Your task to perform on an android device: toggle show notifications on the lock screen Image 0: 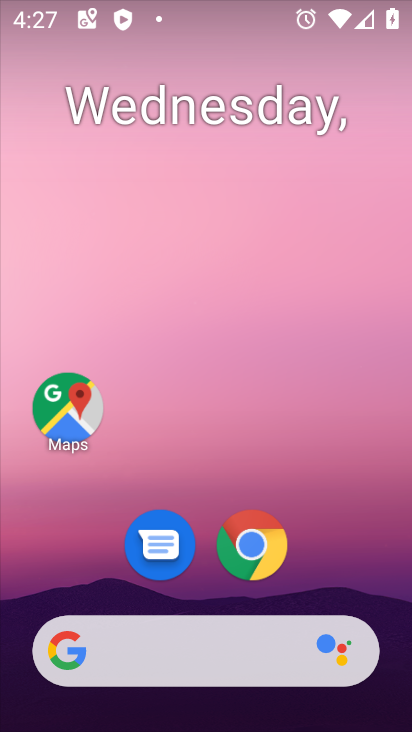
Step 0: drag from (365, 588) to (361, 236)
Your task to perform on an android device: toggle show notifications on the lock screen Image 1: 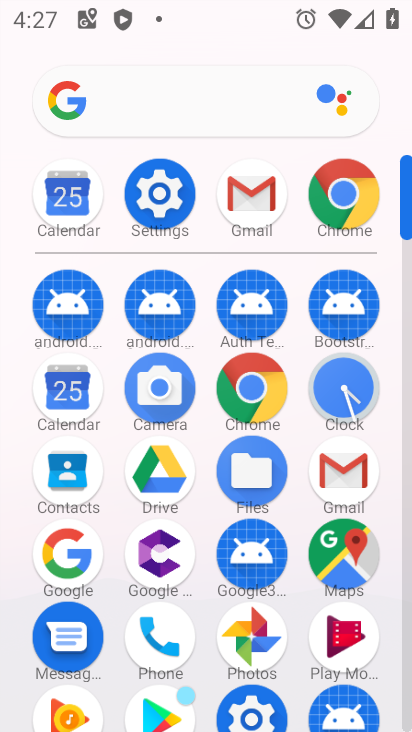
Step 1: click (192, 209)
Your task to perform on an android device: toggle show notifications on the lock screen Image 2: 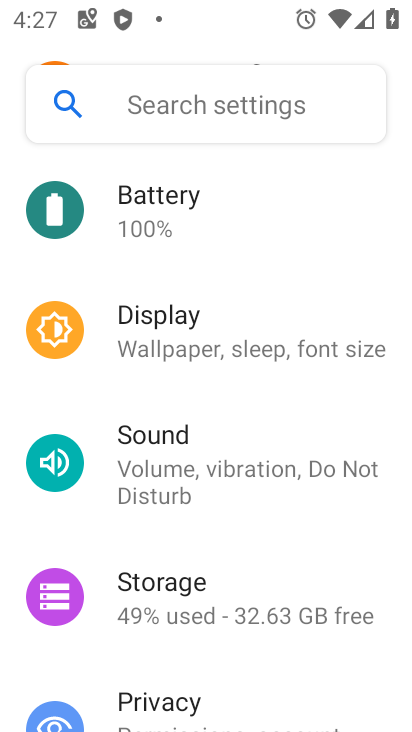
Step 2: drag from (311, 522) to (318, 372)
Your task to perform on an android device: toggle show notifications on the lock screen Image 3: 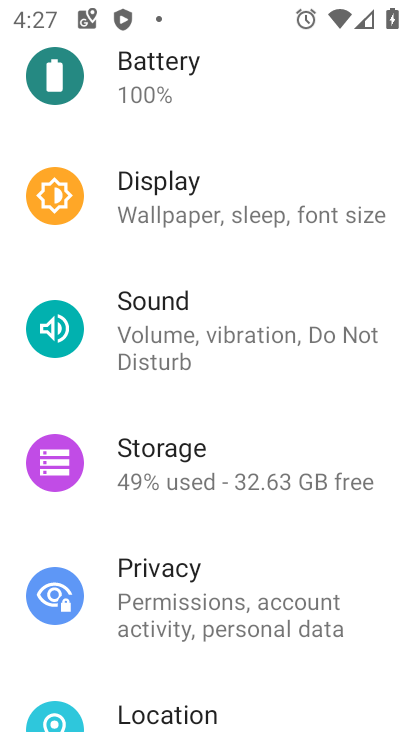
Step 3: drag from (341, 603) to (349, 428)
Your task to perform on an android device: toggle show notifications on the lock screen Image 4: 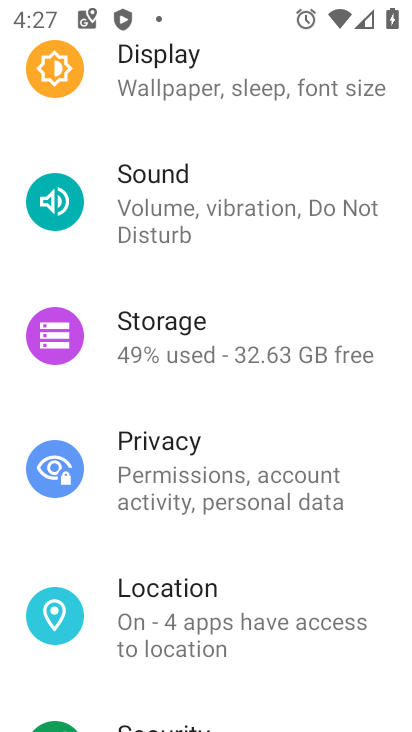
Step 4: drag from (363, 634) to (383, 484)
Your task to perform on an android device: toggle show notifications on the lock screen Image 5: 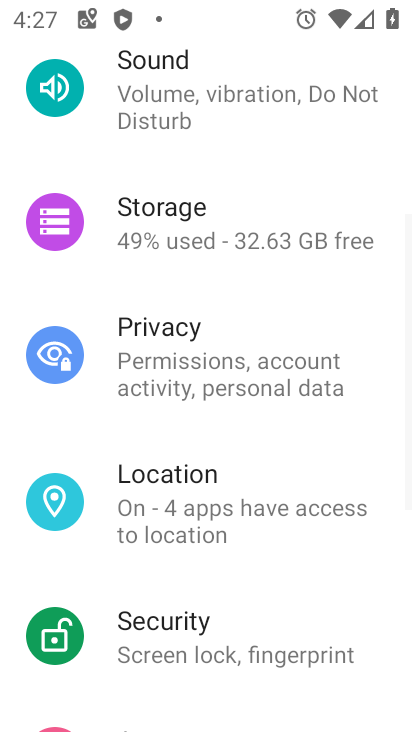
Step 5: drag from (359, 636) to (366, 488)
Your task to perform on an android device: toggle show notifications on the lock screen Image 6: 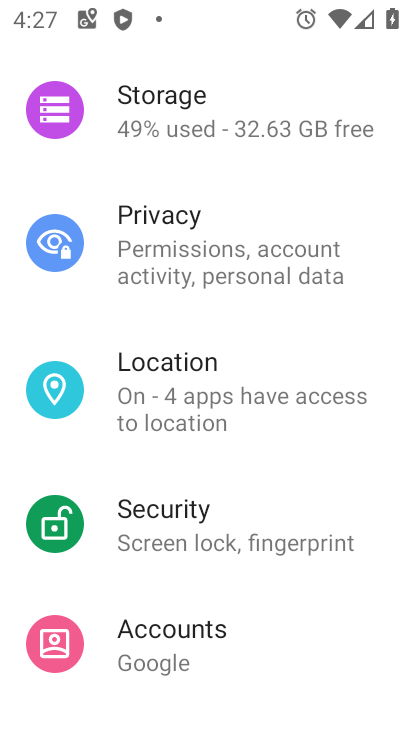
Step 6: drag from (354, 654) to (365, 520)
Your task to perform on an android device: toggle show notifications on the lock screen Image 7: 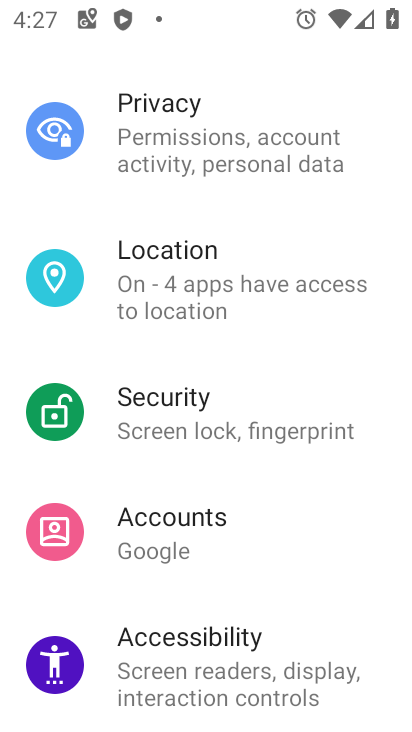
Step 7: drag from (381, 354) to (387, 458)
Your task to perform on an android device: toggle show notifications on the lock screen Image 8: 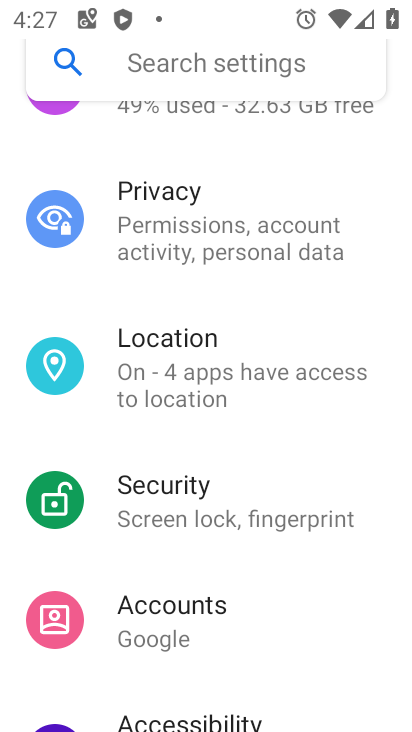
Step 8: drag from (373, 300) to (362, 408)
Your task to perform on an android device: toggle show notifications on the lock screen Image 9: 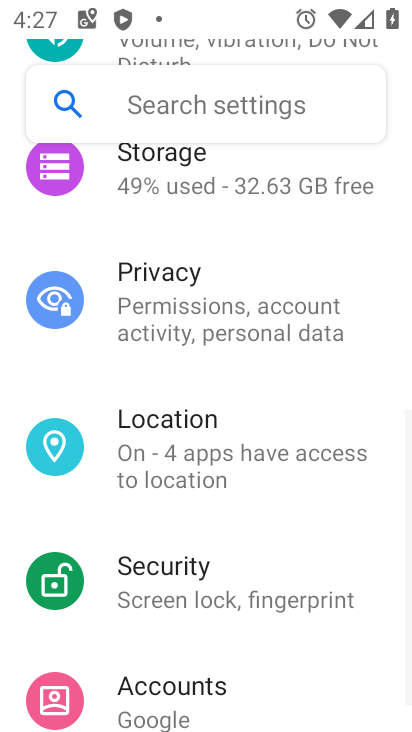
Step 9: drag from (355, 267) to (352, 386)
Your task to perform on an android device: toggle show notifications on the lock screen Image 10: 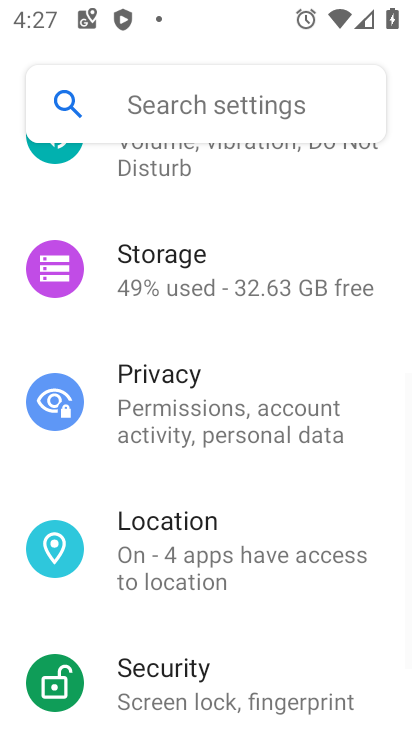
Step 10: drag from (372, 236) to (377, 415)
Your task to perform on an android device: toggle show notifications on the lock screen Image 11: 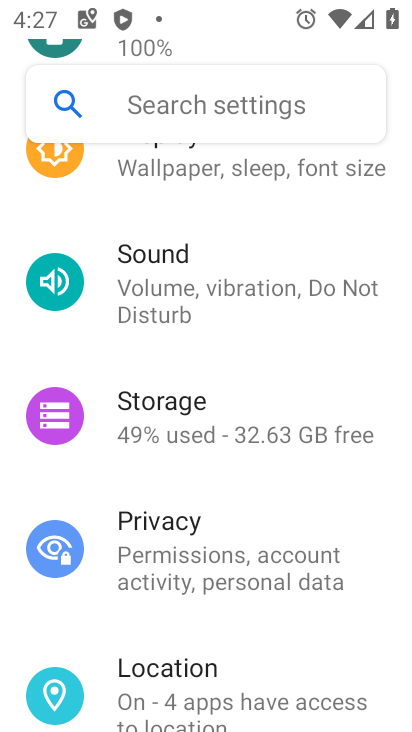
Step 11: drag from (360, 245) to (350, 375)
Your task to perform on an android device: toggle show notifications on the lock screen Image 12: 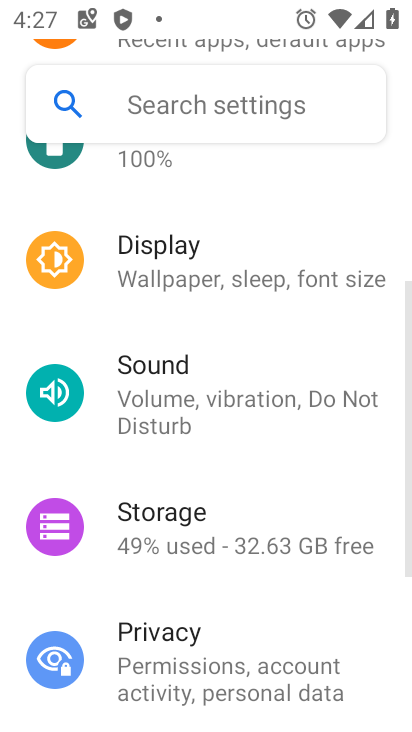
Step 12: drag from (332, 207) to (308, 361)
Your task to perform on an android device: toggle show notifications on the lock screen Image 13: 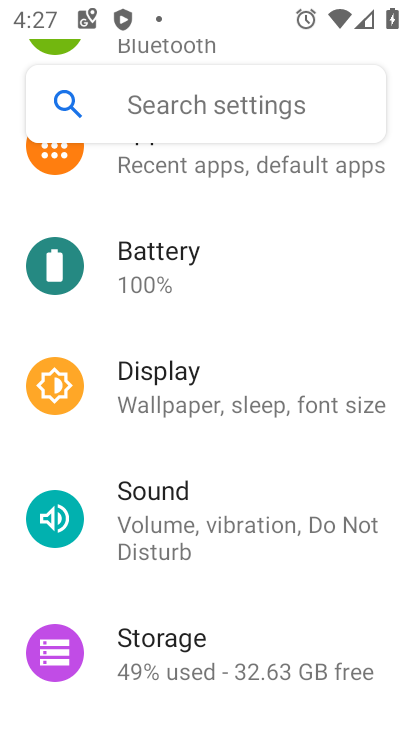
Step 13: drag from (305, 211) to (299, 350)
Your task to perform on an android device: toggle show notifications on the lock screen Image 14: 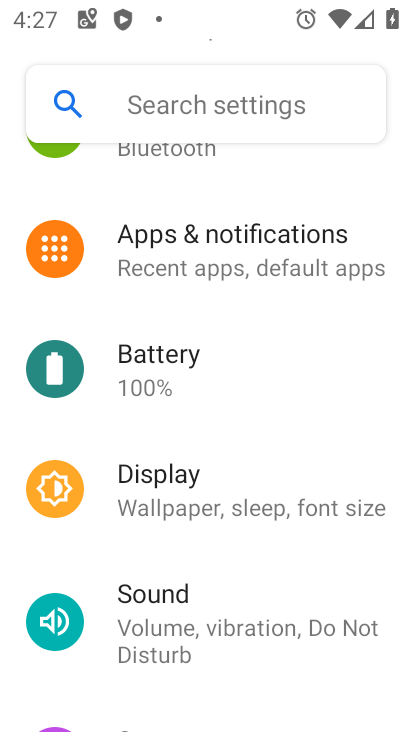
Step 14: click (259, 254)
Your task to perform on an android device: toggle show notifications on the lock screen Image 15: 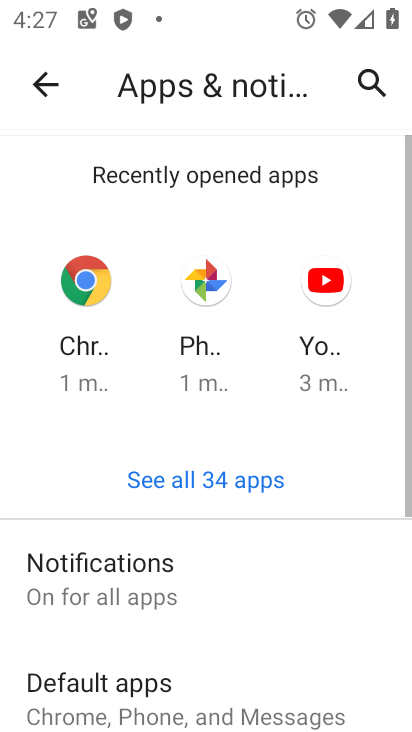
Step 15: drag from (254, 542) to (265, 362)
Your task to perform on an android device: toggle show notifications on the lock screen Image 16: 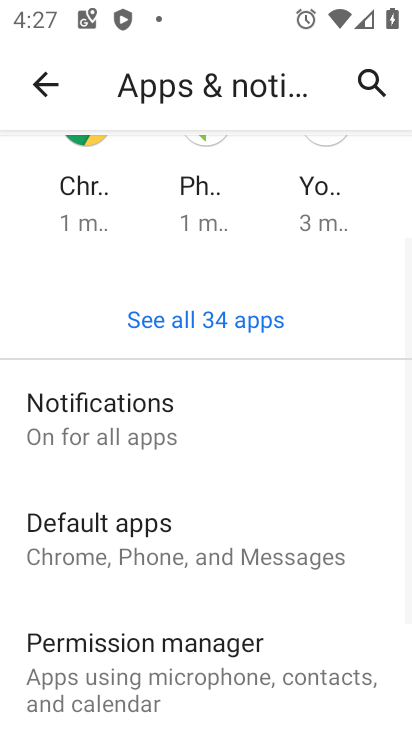
Step 16: click (139, 467)
Your task to perform on an android device: toggle show notifications on the lock screen Image 17: 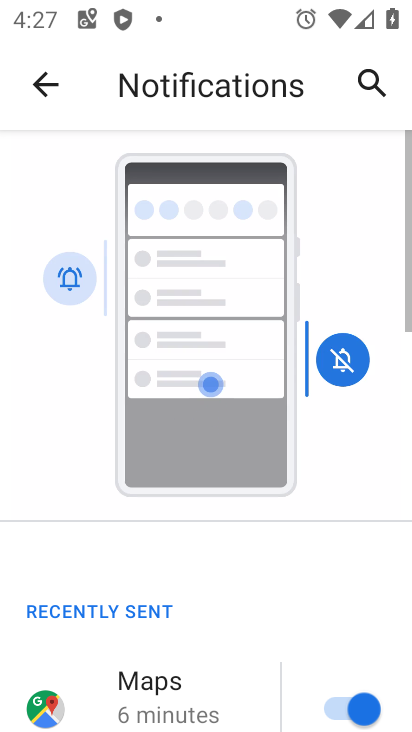
Step 17: drag from (249, 553) to (242, 433)
Your task to perform on an android device: toggle show notifications on the lock screen Image 18: 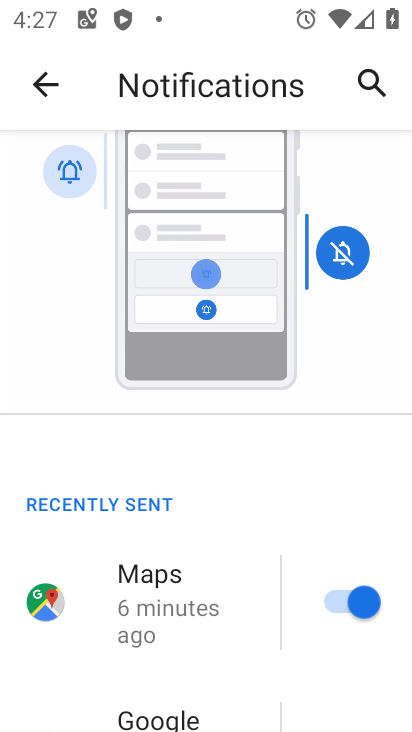
Step 18: drag from (254, 587) to (262, 485)
Your task to perform on an android device: toggle show notifications on the lock screen Image 19: 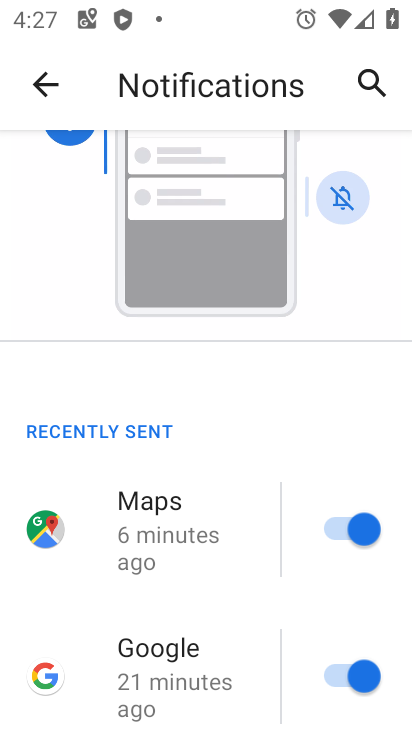
Step 19: drag from (264, 613) to (279, 471)
Your task to perform on an android device: toggle show notifications on the lock screen Image 20: 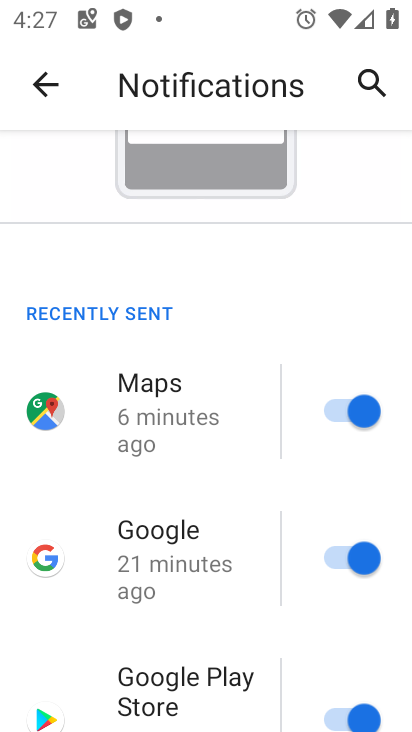
Step 20: drag from (245, 609) to (240, 441)
Your task to perform on an android device: toggle show notifications on the lock screen Image 21: 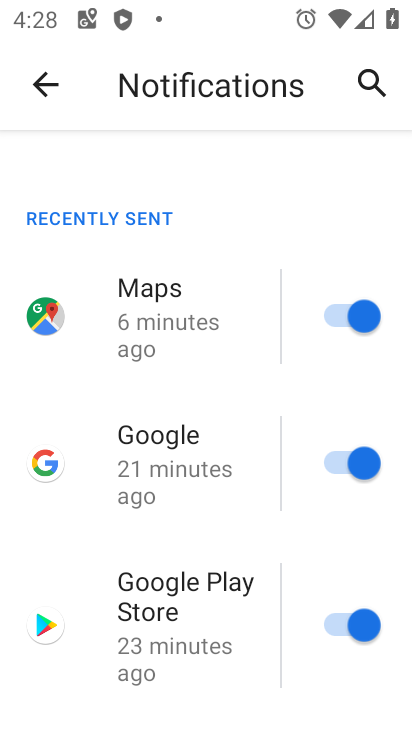
Step 21: drag from (224, 630) to (242, 461)
Your task to perform on an android device: toggle show notifications on the lock screen Image 22: 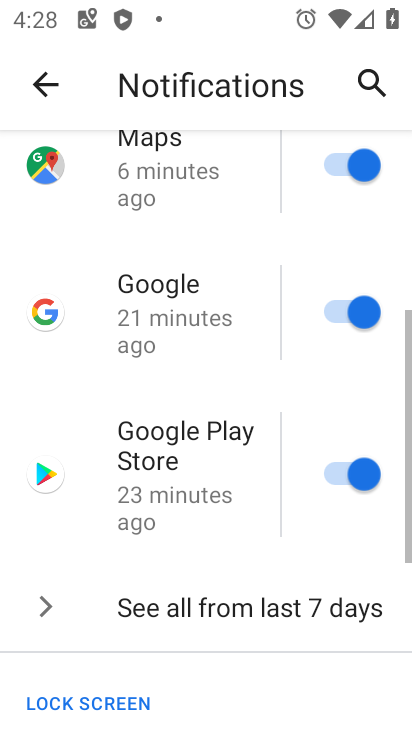
Step 22: drag from (255, 653) to (259, 473)
Your task to perform on an android device: toggle show notifications on the lock screen Image 23: 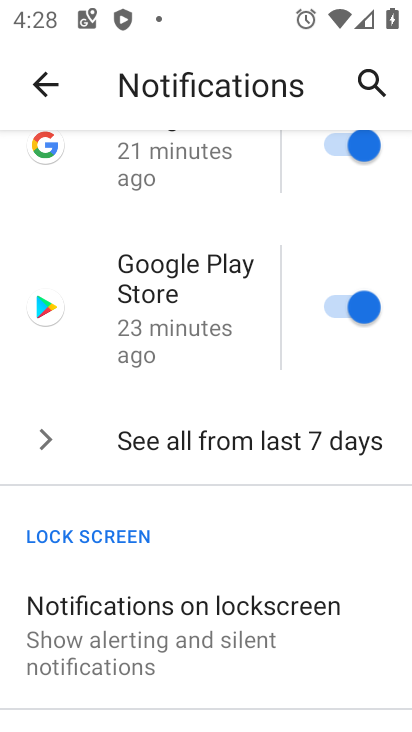
Step 23: click (253, 614)
Your task to perform on an android device: toggle show notifications on the lock screen Image 24: 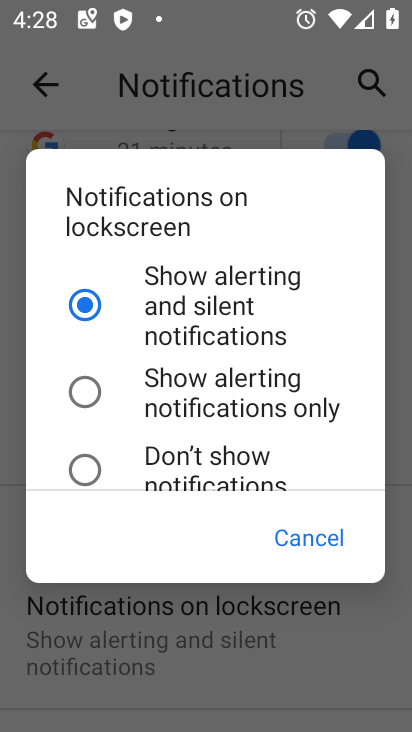
Step 24: click (179, 392)
Your task to perform on an android device: toggle show notifications on the lock screen Image 25: 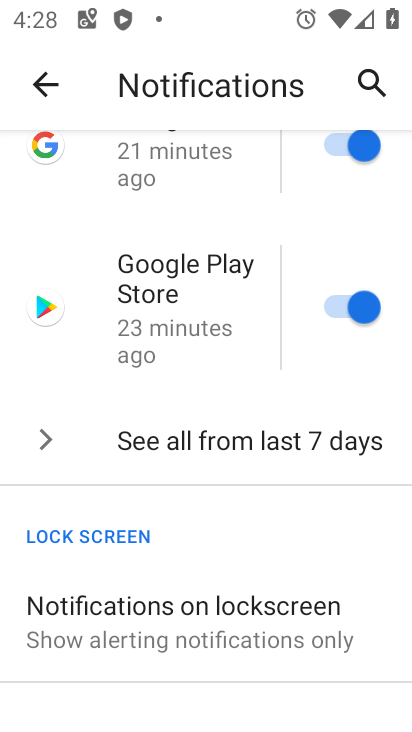
Step 25: task complete